Your task to perform on an android device: choose inbox layout in the gmail app Image 0: 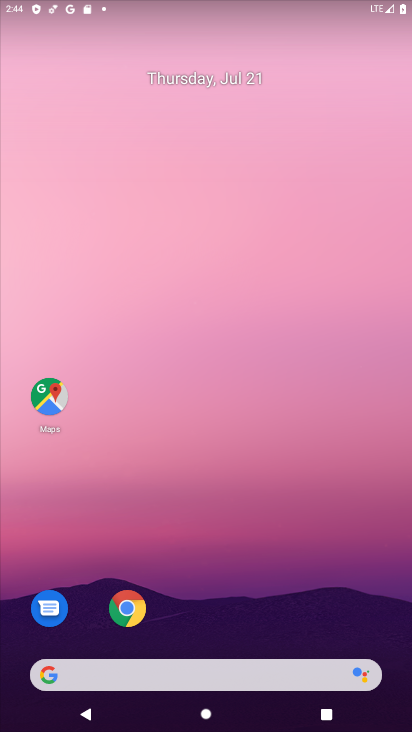
Step 0: drag from (243, 618) to (208, 98)
Your task to perform on an android device: choose inbox layout in the gmail app Image 1: 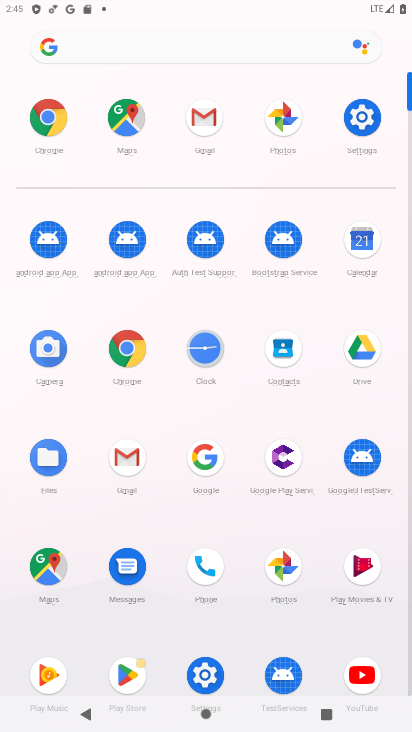
Step 1: click (123, 451)
Your task to perform on an android device: choose inbox layout in the gmail app Image 2: 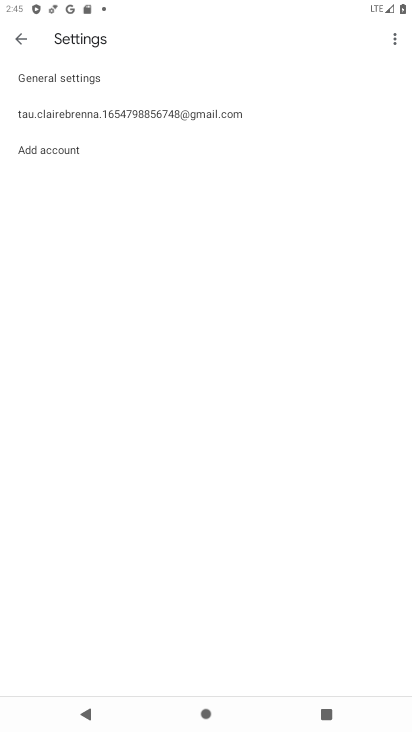
Step 2: click (72, 106)
Your task to perform on an android device: choose inbox layout in the gmail app Image 3: 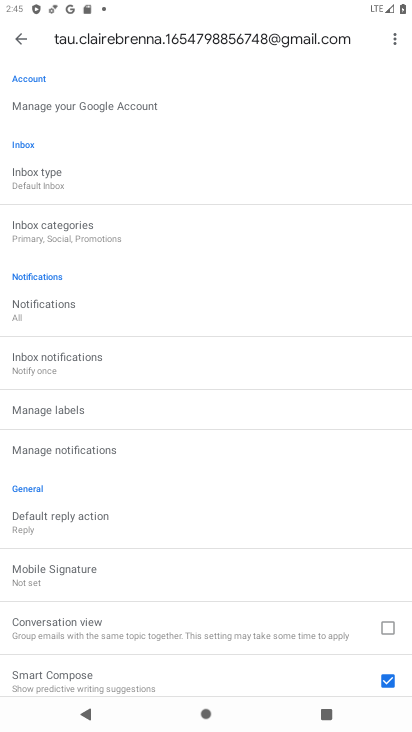
Step 3: click (56, 186)
Your task to perform on an android device: choose inbox layout in the gmail app Image 4: 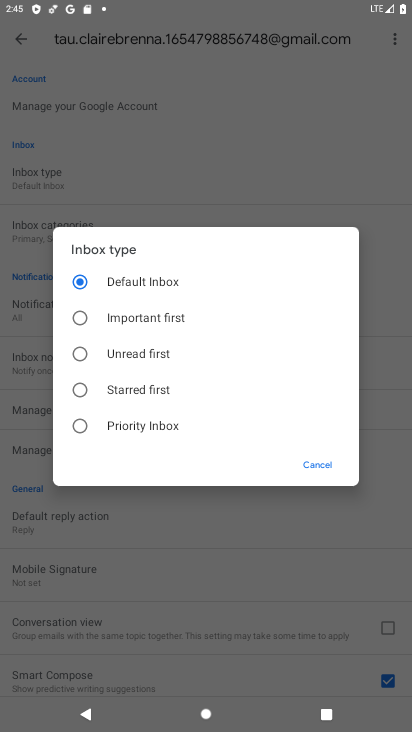
Step 4: task complete